Your task to perform on an android device: Search for seafood restaurants on Google Maps Image 0: 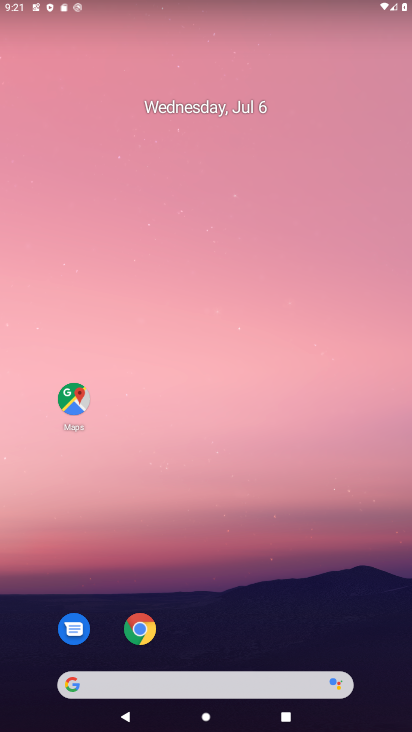
Step 0: drag from (229, 627) to (210, 190)
Your task to perform on an android device: Search for seafood restaurants on Google Maps Image 1: 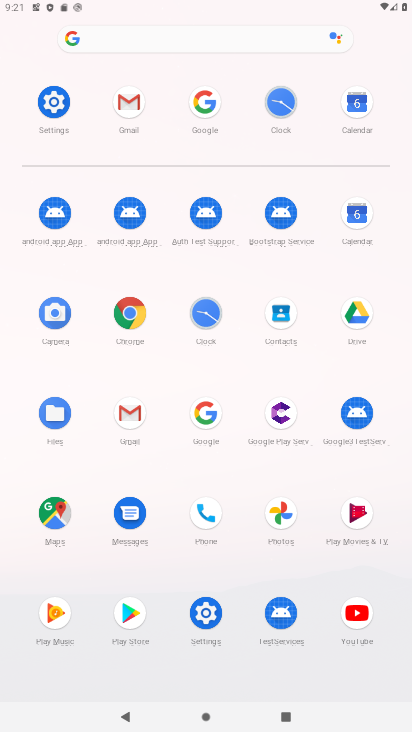
Step 1: click (57, 513)
Your task to perform on an android device: Search for seafood restaurants on Google Maps Image 2: 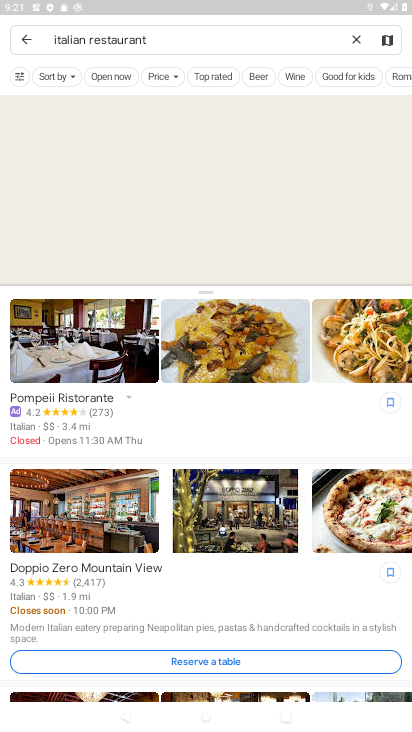
Step 2: click (242, 37)
Your task to perform on an android device: Search for seafood restaurants on Google Maps Image 3: 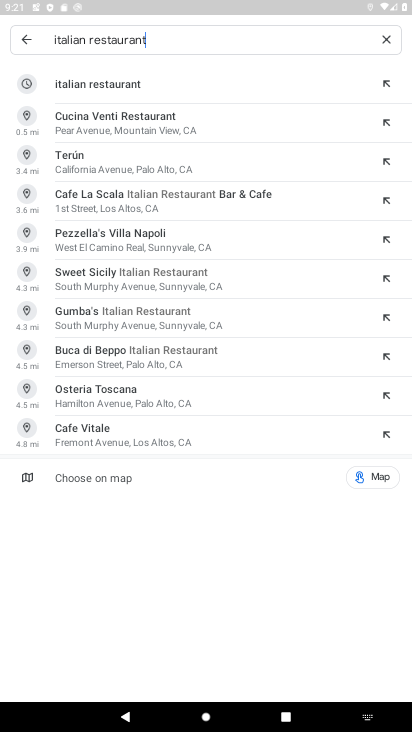
Step 3: click (385, 39)
Your task to perform on an android device: Search for seafood restaurants on Google Maps Image 4: 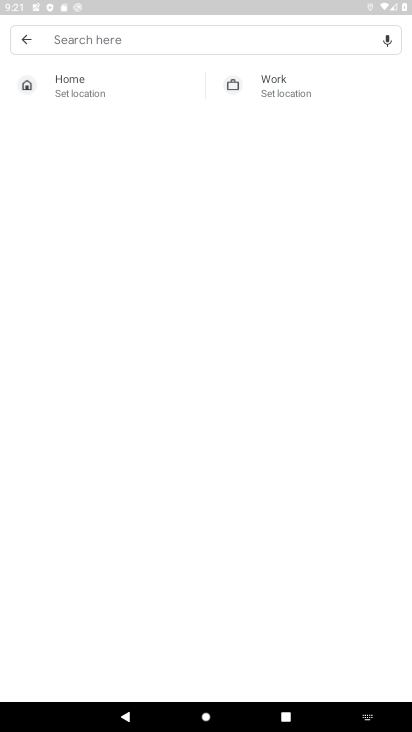
Step 4: type "seafood restaurants"
Your task to perform on an android device: Search for seafood restaurants on Google Maps Image 5: 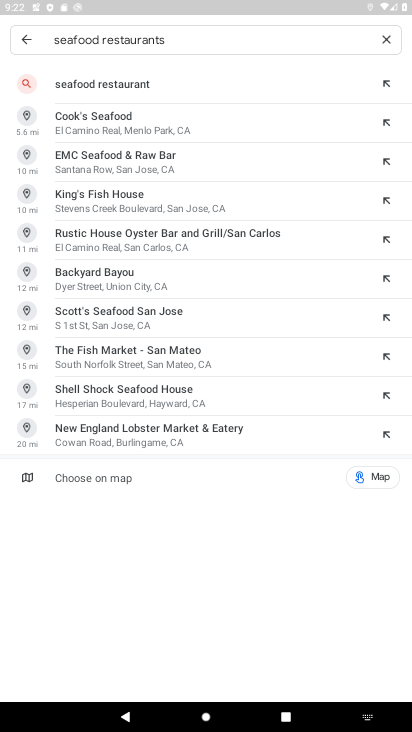
Step 5: click (133, 90)
Your task to perform on an android device: Search for seafood restaurants on Google Maps Image 6: 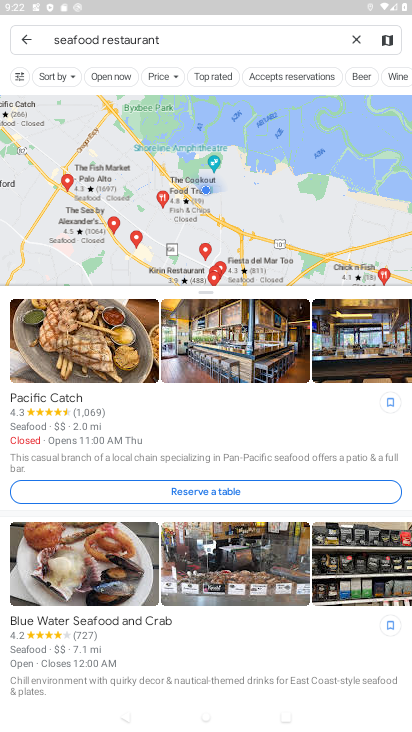
Step 6: task complete